Your task to perform on an android device: Is it going to rain tomorrow? Image 0: 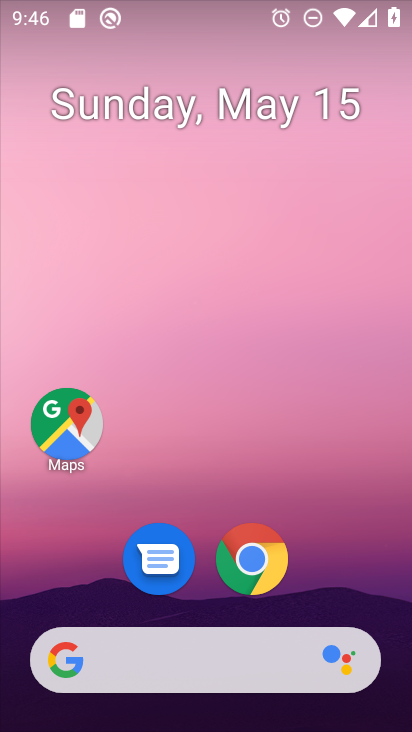
Step 0: click (355, 565)
Your task to perform on an android device: Is it going to rain tomorrow? Image 1: 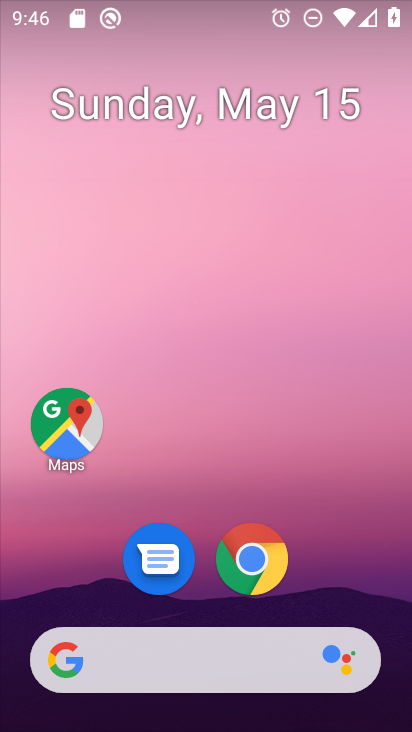
Step 1: click (215, 674)
Your task to perform on an android device: Is it going to rain tomorrow? Image 2: 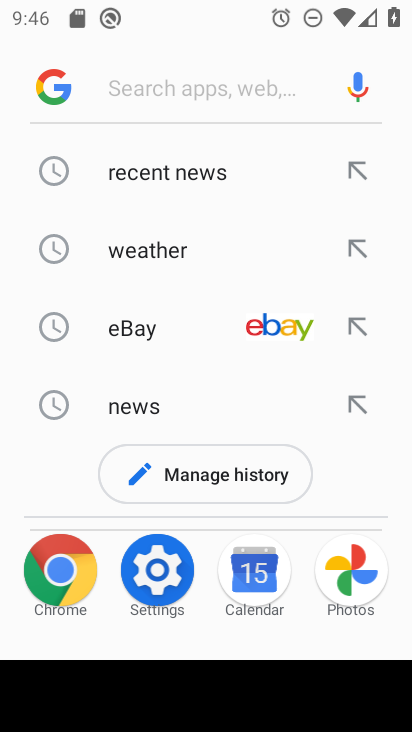
Step 2: click (199, 235)
Your task to perform on an android device: Is it going to rain tomorrow? Image 3: 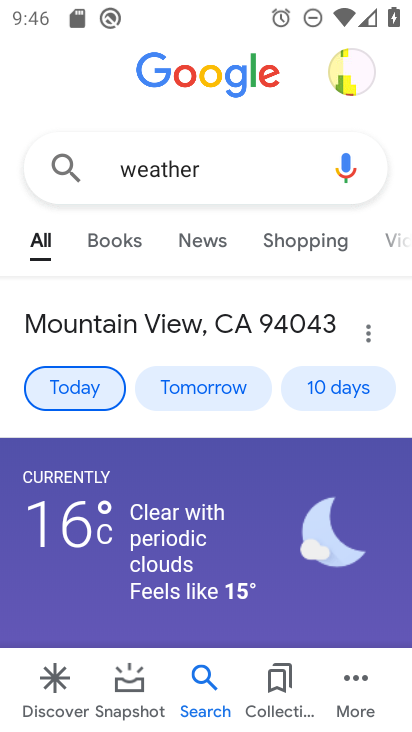
Step 3: click (197, 380)
Your task to perform on an android device: Is it going to rain tomorrow? Image 4: 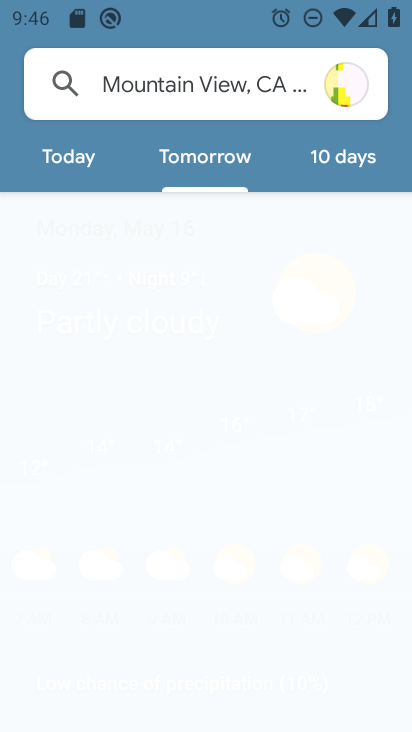
Step 4: task complete